Your task to perform on an android device: What's the weather going to be this weekend? Image 0: 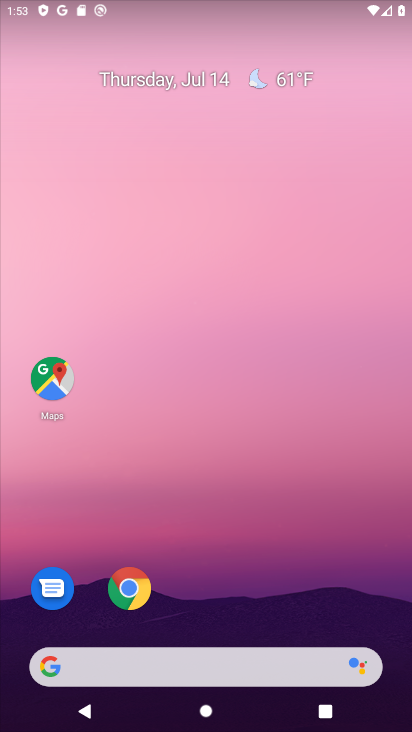
Step 0: drag from (260, 602) to (302, 141)
Your task to perform on an android device: What's the weather going to be this weekend? Image 1: 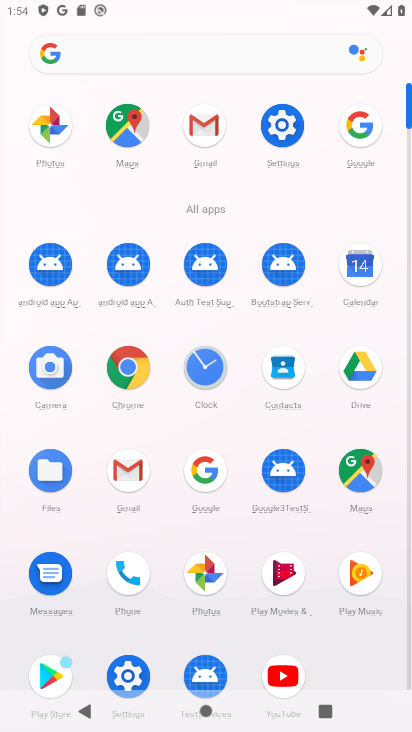
Step 1: click (208, 470)
Your task to perform on an android device: What's the weather going to be this weekend? Image 2: 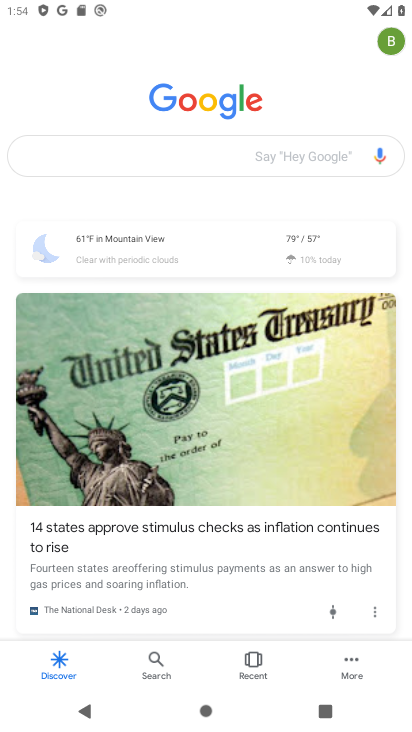
Step 2: click (190, 152)
Your task to perform on an android device: What's the weather going to be this weekend? Image 3: 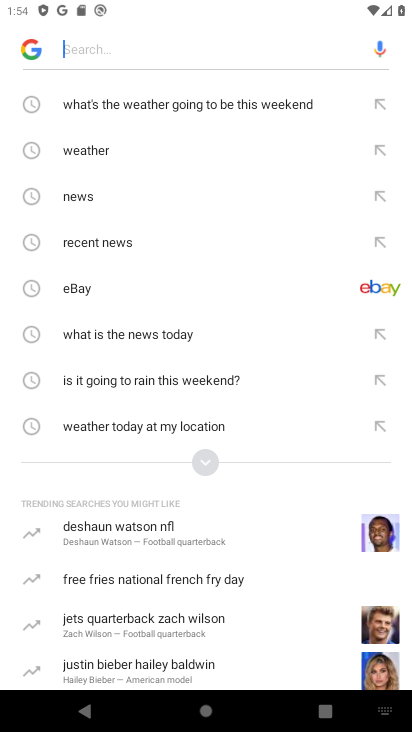
Step 3: click (125, 105)
Your task to perform on an android device: What's the weather going to be this weekend? Image 4: 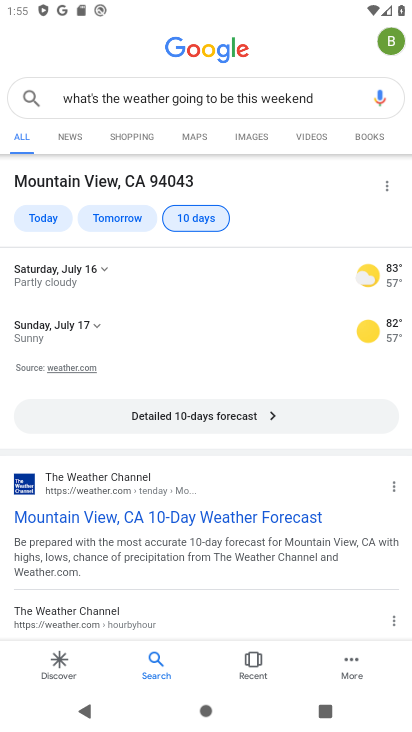
Step 4: task complete